Your task to perform on an android device: Search for Italian restaurants on Maps Image 0: 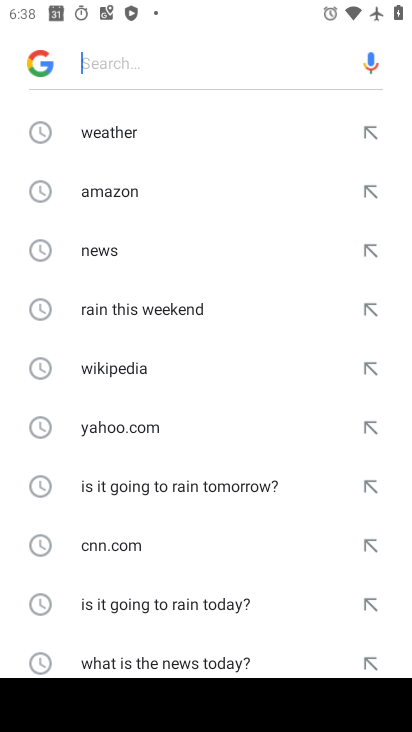
Step 0: press home button
Your task to perform on an android device: Search for Italian restaurants on Maps Image 1: 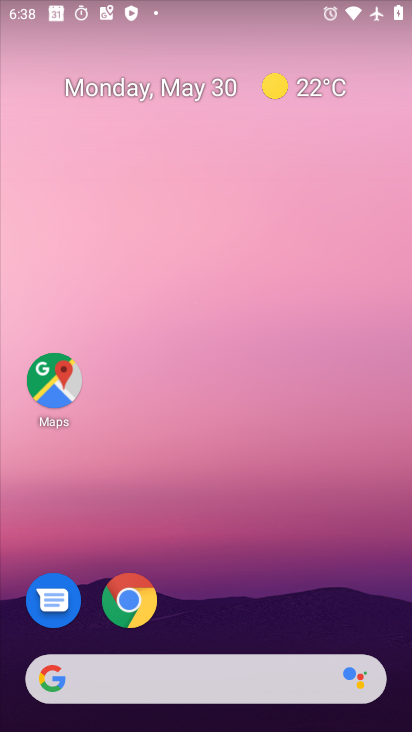
Step 1: click (39, 393)
Your task to perform on an android device: Search for Italian restaurants on Maps Image 2: 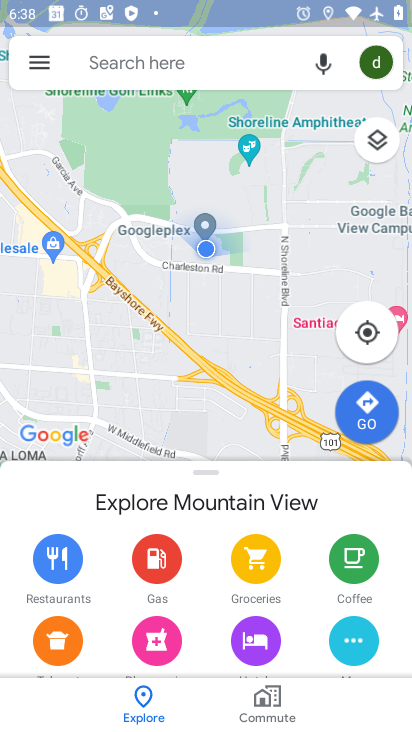
Step 2: click (179, 49)
Your task to perform on an android device: Search for Italian restaurants on Maps Image 3: 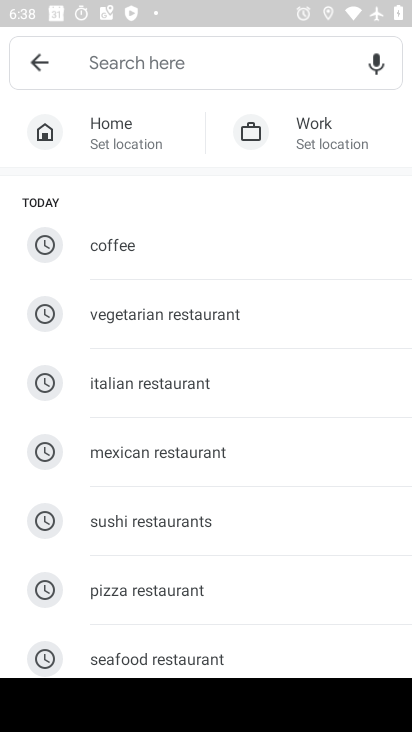
Step 3: click (150, 385)
Your task to perform on an android device: Search for Italian restaurants on Maps Image 4: 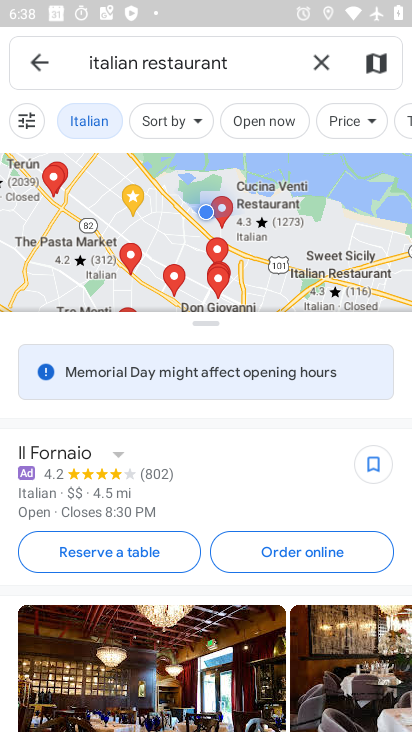
Step 4: task complete